Your task to perform on an android device: Search for Mexican restaurants on Maps Image 0: 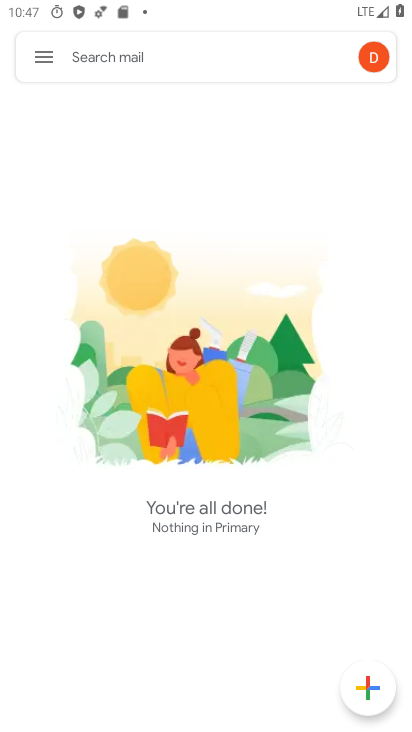
Step 0: press home button
Your task to perform on an android device: Search for Mexican restaurants on Maps Image 1: 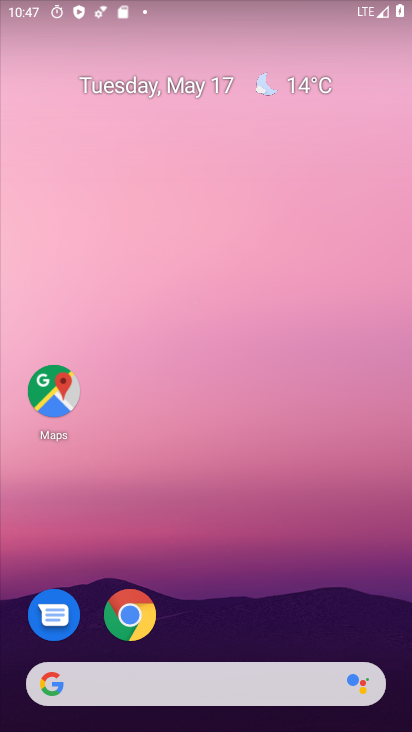
Step 1: press home button
Your task to perform on an android device: Search for Mexican restaurants on Maps Image 2: 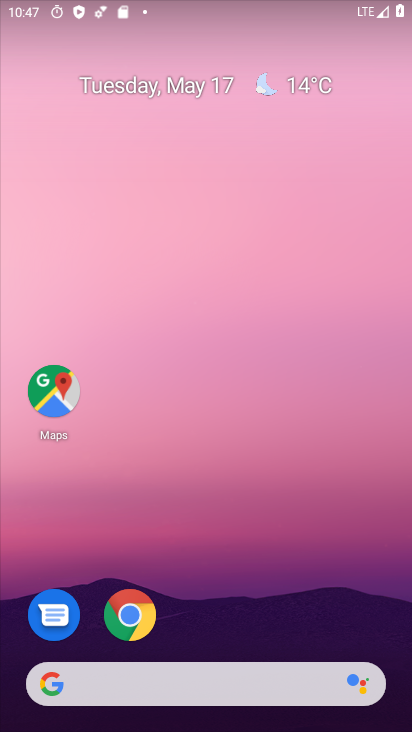
Step 2: click (52, 390)
Your task to perform on an android device: Search for Mexican restaurants on Maps Image 3: 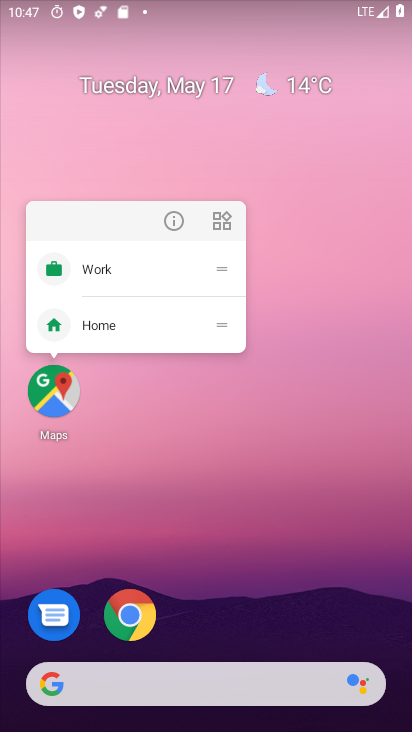
Step 3: click (56, 395)
Your task to perform on an android device: Search for Mexican restaurants on Maps Image 4: 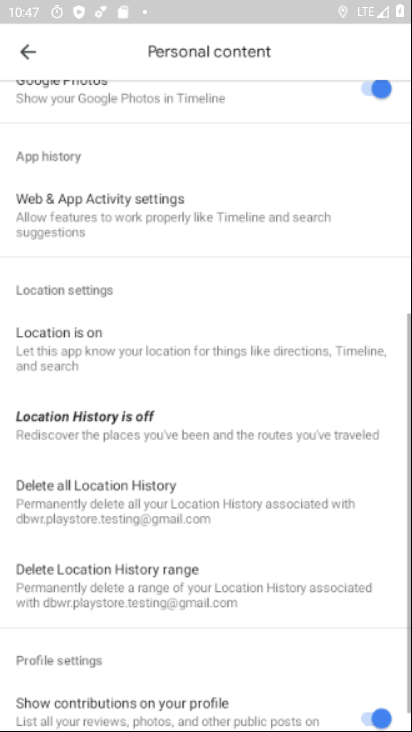
Step 4: click (20, 52)
Your task to perform on an android device: Search for Mexican restaurants on Maps Image 5: 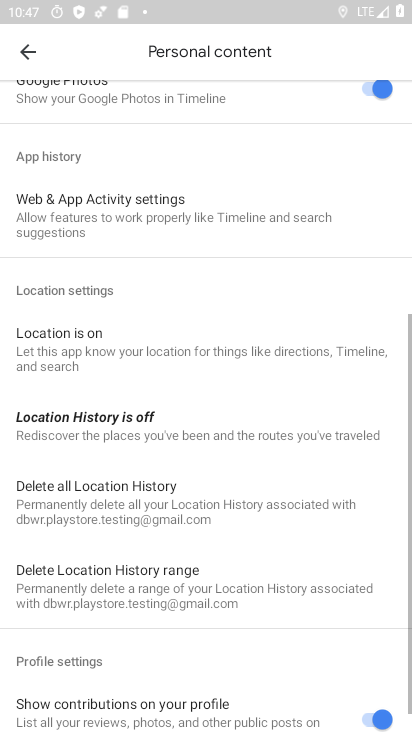
Step 5: click (31, 49)
Your task to perform on an android device: Search for Mexican restaurants on Maps Image 6: 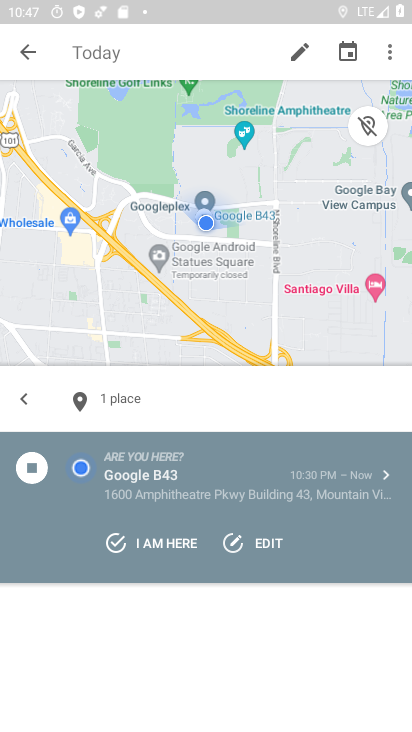
Step 6: click (26, 56)
Your task to perform on an android device: Search for Mexican restaurants on Maps Image 7: 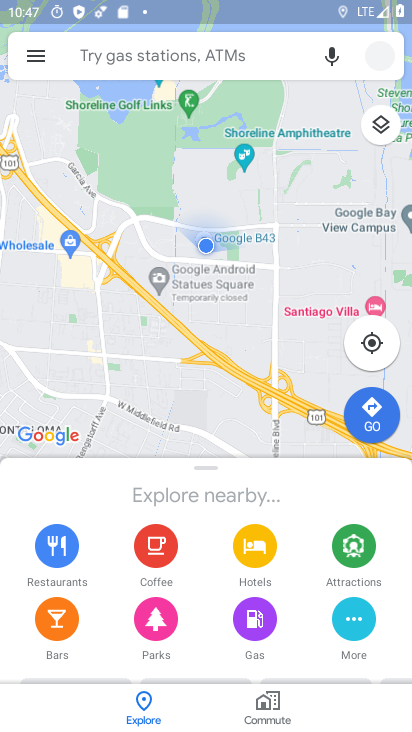
Step 7: click (181, 51)
Your task to perform on an android device: Search for Mexican restaurants on Maps Image 8: 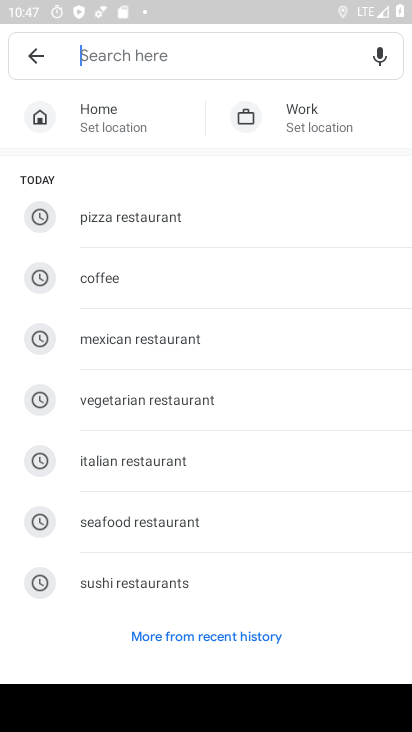
Step 8: click (166, 338)
Your task to perform on an android device: Search for Mexican restaurants on Maps Image 9: 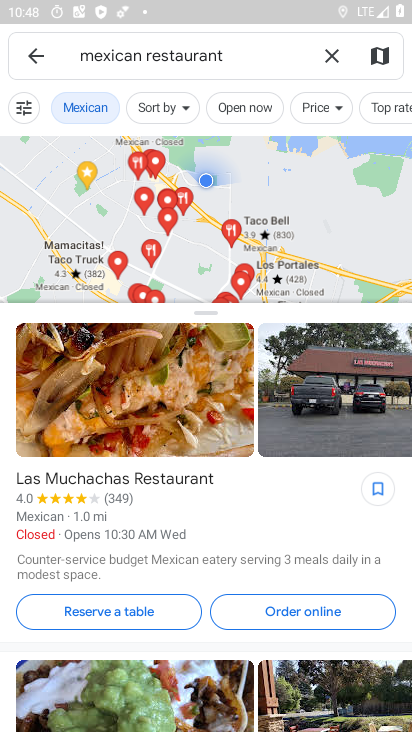
Step 9: task complete